Your task to perform on an android device: check the backup settings in the google photos Image 0: 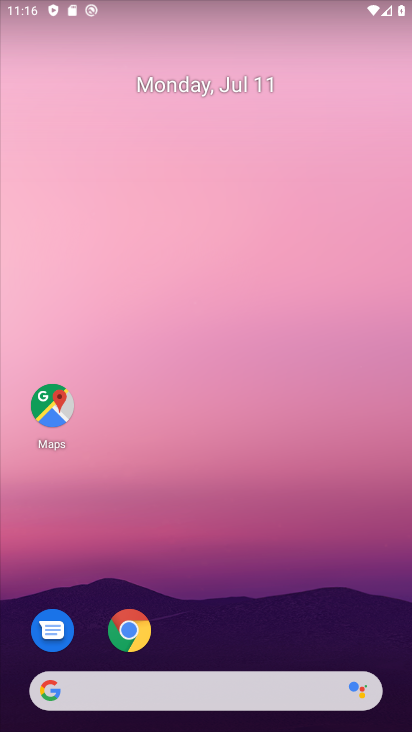
Step 0: drag from (314, 639) to (308, 139)
Your task to perform on an android device: check the backup settings in the google photos Image 1: 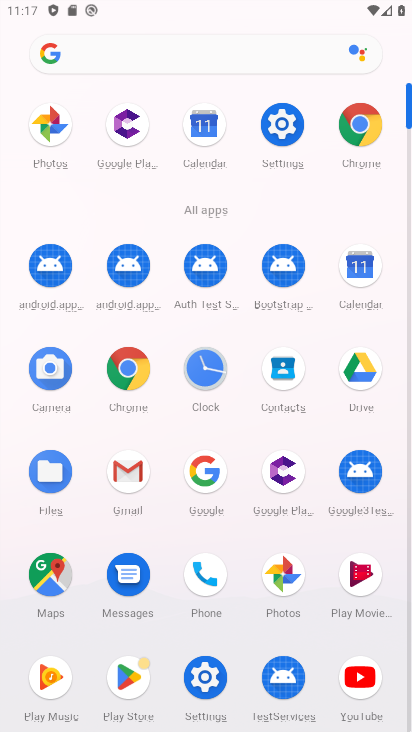
Step 1: click (289, 573)
Your task to perform on an android device: check the backup settings in the google photos Image 2: 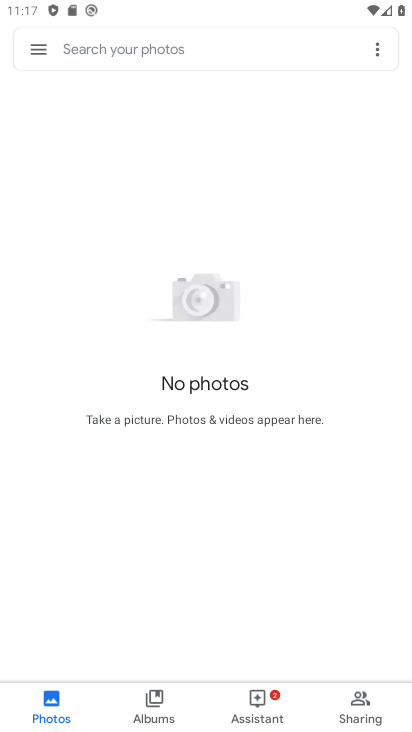
Step 2: click (54, 62)
Your task to perform on an android device: check the backup settings in the google photos Image 3: 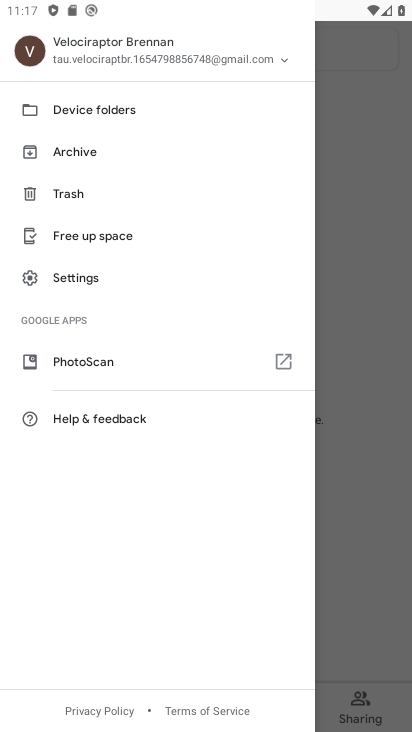
Step 3: click (83, 277)
Your task to perform on an android device: check the backup settings in the google photos Image 4: 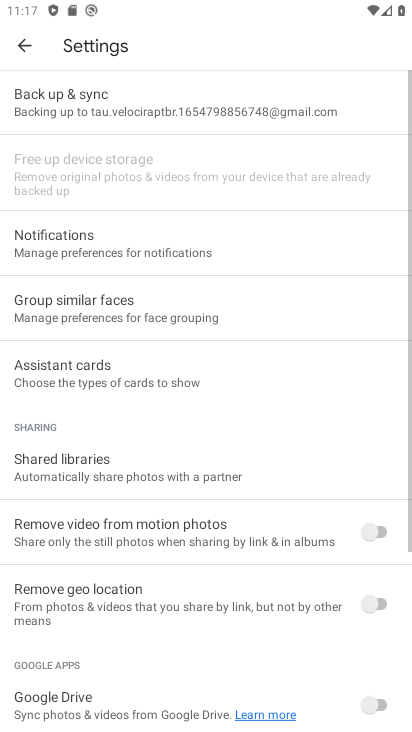
Step 4: click (74, 121)
Your task to perform on an android device: check the backup settings in the google photos Image 5: 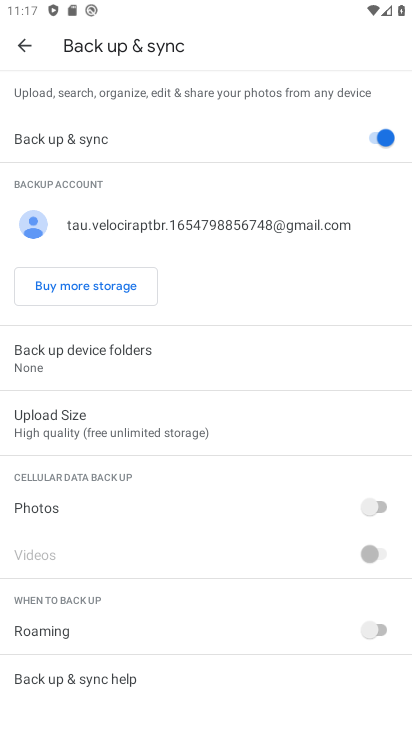
Step 5: task complete